Your task to perform on an android device: Open the map Image 0: 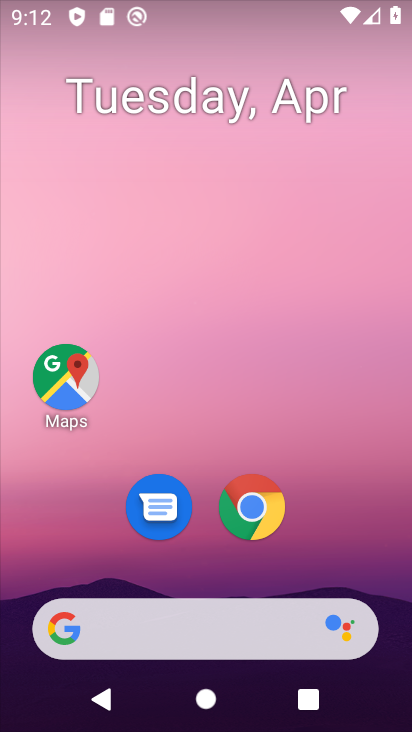
Step 0: drag from (343, 476) to (359, 150)
Your task to perform on an android device: Open the map Image 1: 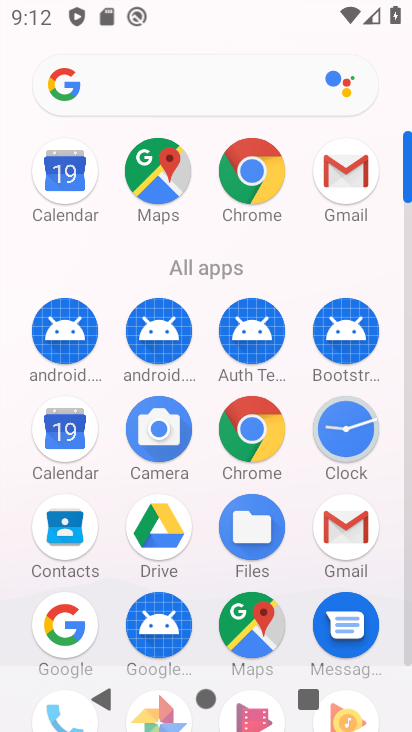
Step 1: click (259, 611)
Your task to perform on an android device: Open the map Image 2: 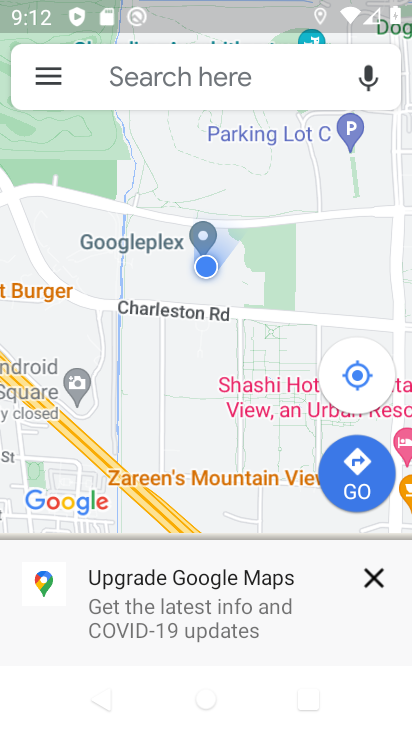
Step 2: task complete